Your task to perform on an android device: empty trash in the gmail app Image 0: 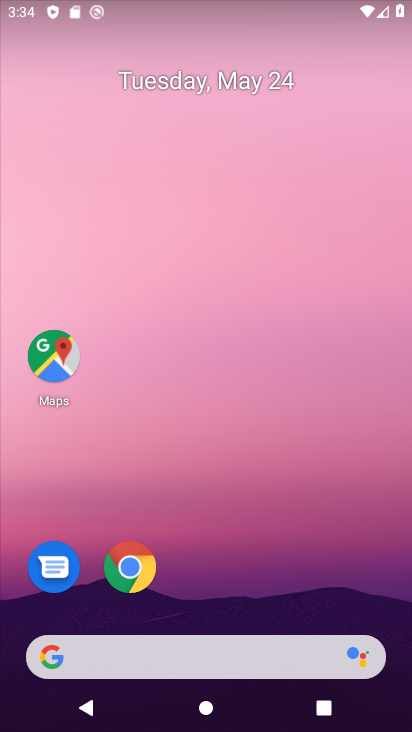
Step 0: drag from (265, 588) to (238, 14)
Your task to perform on an android device: empty trash in the gmail app Image 1: 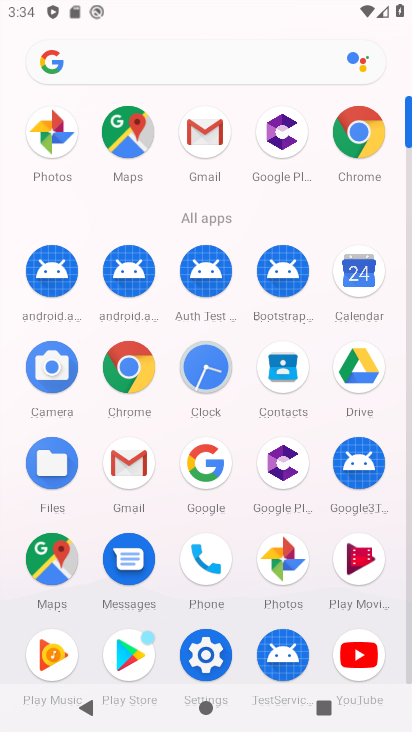
Step 1: click (126, 475)
Your task to perform on an android device: empty trash in the gmail app Image 2: 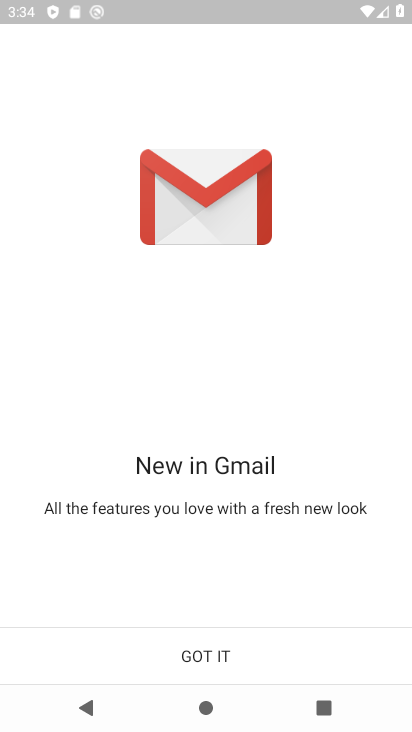
Step 2: click (220, 659)
Your task to perform on an android device: empty trash in the gmail app Image 3: 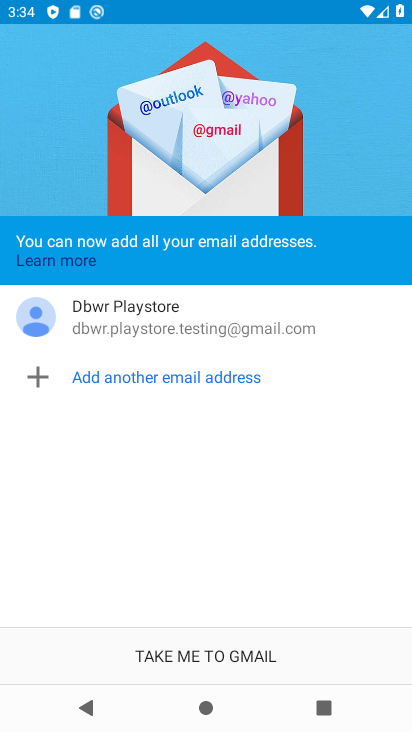
Step 3: click (213, 652)
Your task to perform on an android device: empty trash in the gmail app Image 4: 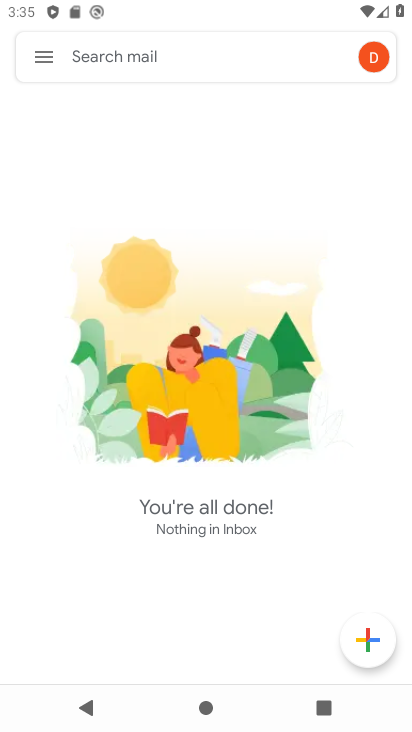
Step 4: click (44, 52)
Your task to perform on an android device: empty trash in the gmail app Image 5: 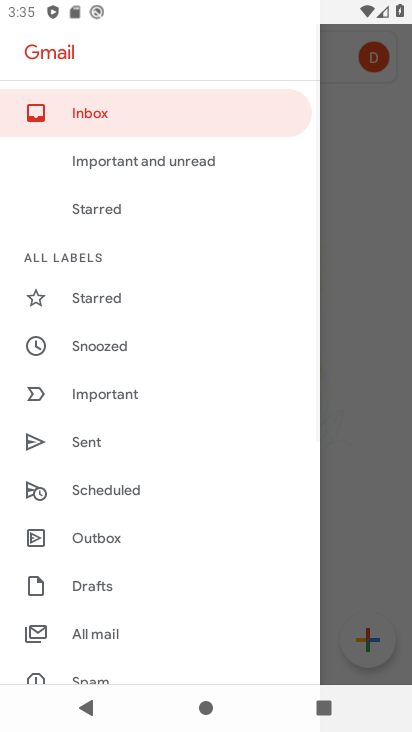
Step 5: drag from (101, 646) to (128, 364)
Your task to perform on an android device: empty trash in the gmail app Image 6: 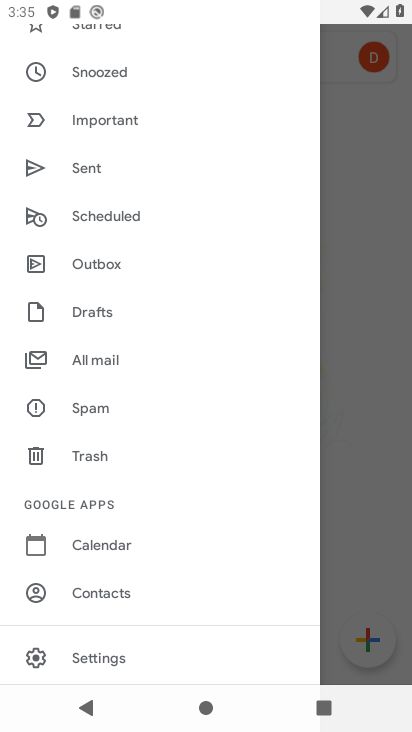
Step 6: click (80, 455)
Your task to perform on an android device: empty trash in the gmail app Image 7: 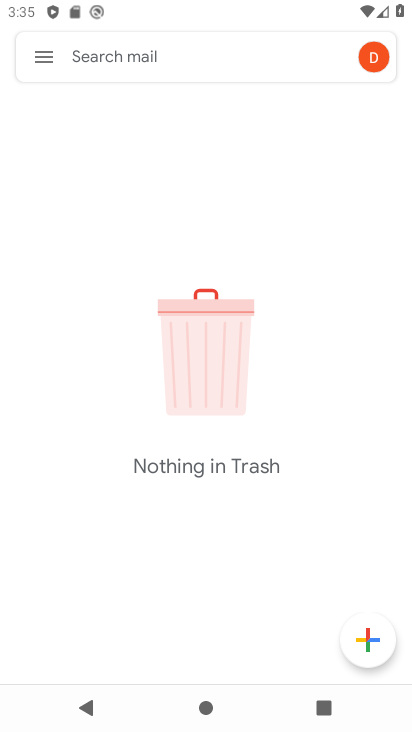
Step 7: task complete